Your task to perform on an android device: Go to Reddit.com Image 0: 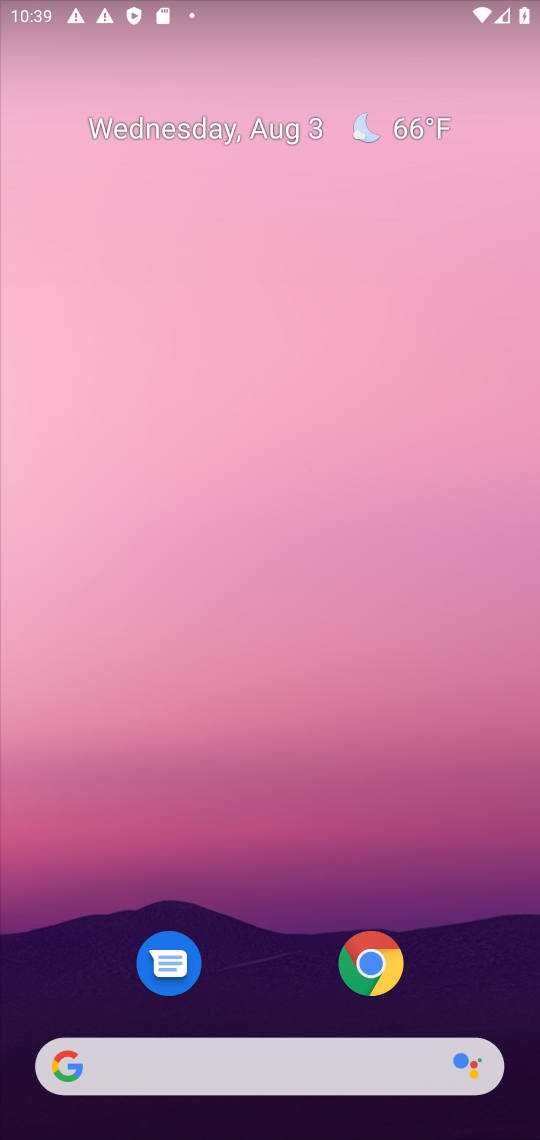
Step 0: click (379, 951)
Your task to perform on an android device: Go to Reddit.com Image 1: 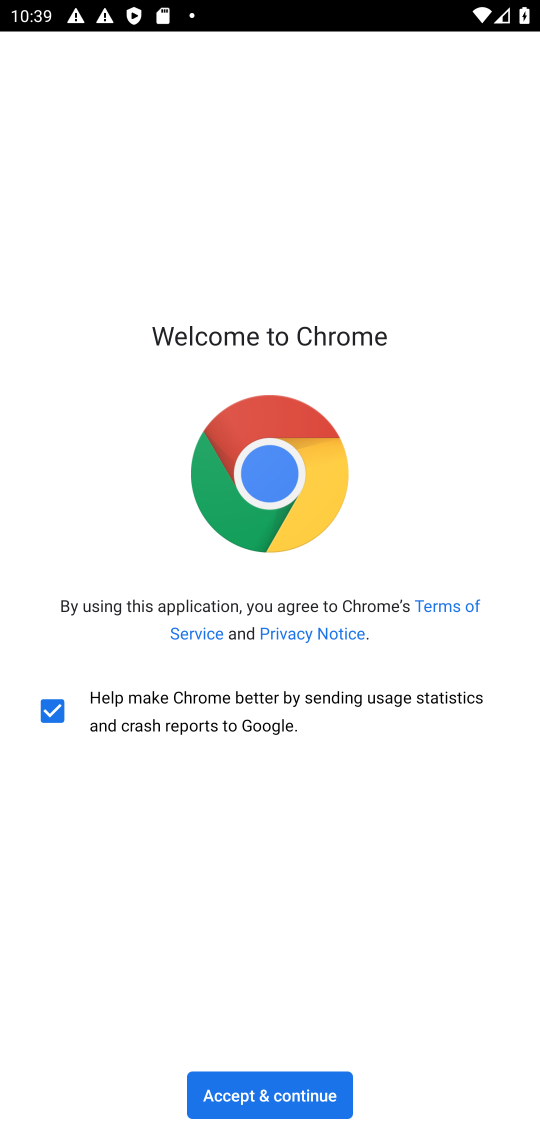
Step 1: click (320, 1081)
Your task to perform on an android device: Go to Reddit.com Image 2: 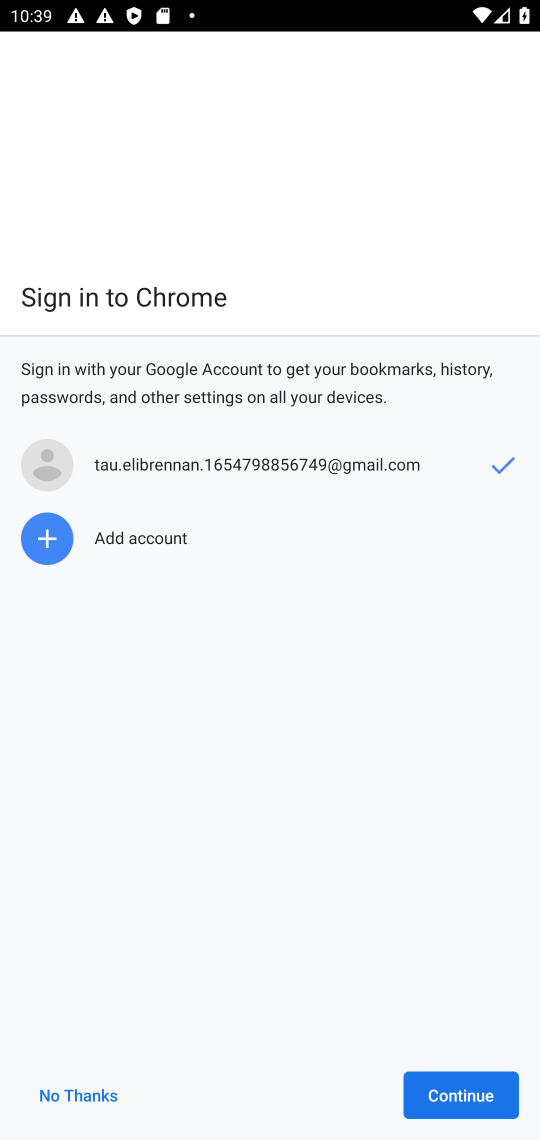
Step 2: click (434, 1085)
Your task to perform on an android device: Go to Reddit.com Image 3: 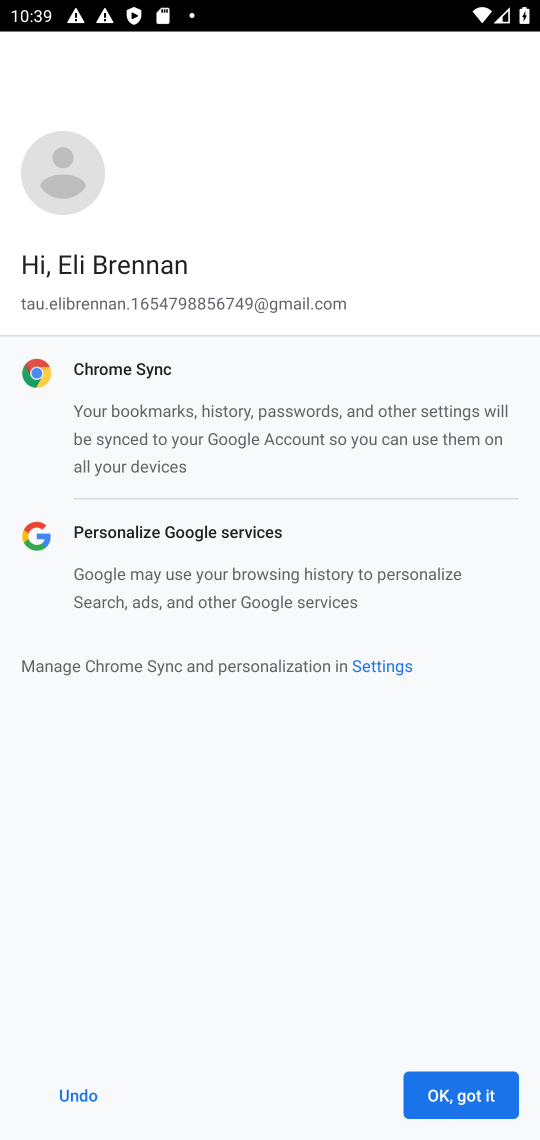
Step 3: click (434, 1085)
Your task to perform on an android device: Go to Reddit.com Image 4: 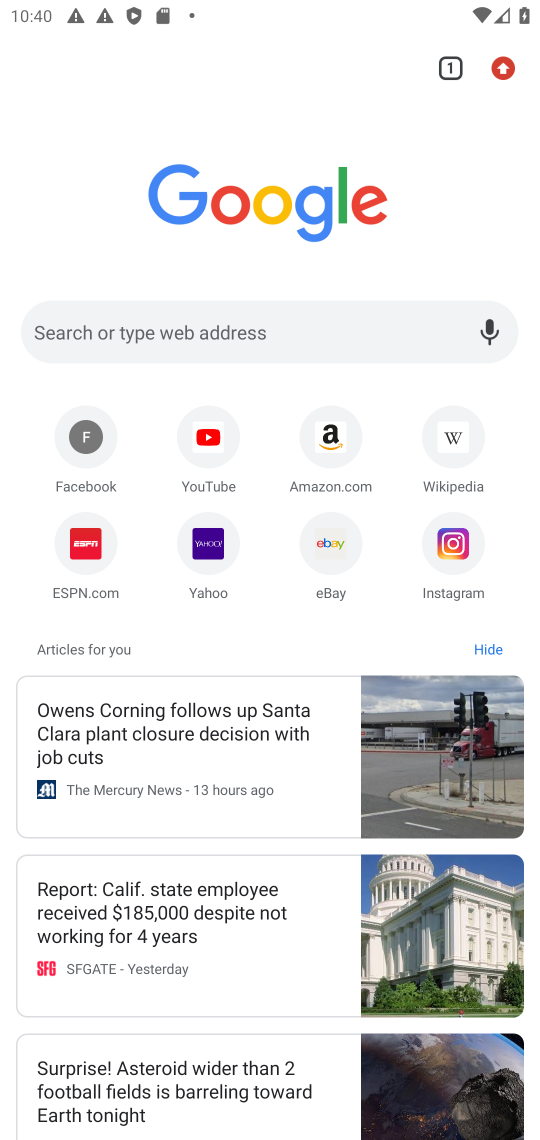
Step 4: click (233, 314)
Your task to perform on an android device: Go to Reddit.com Image 5: 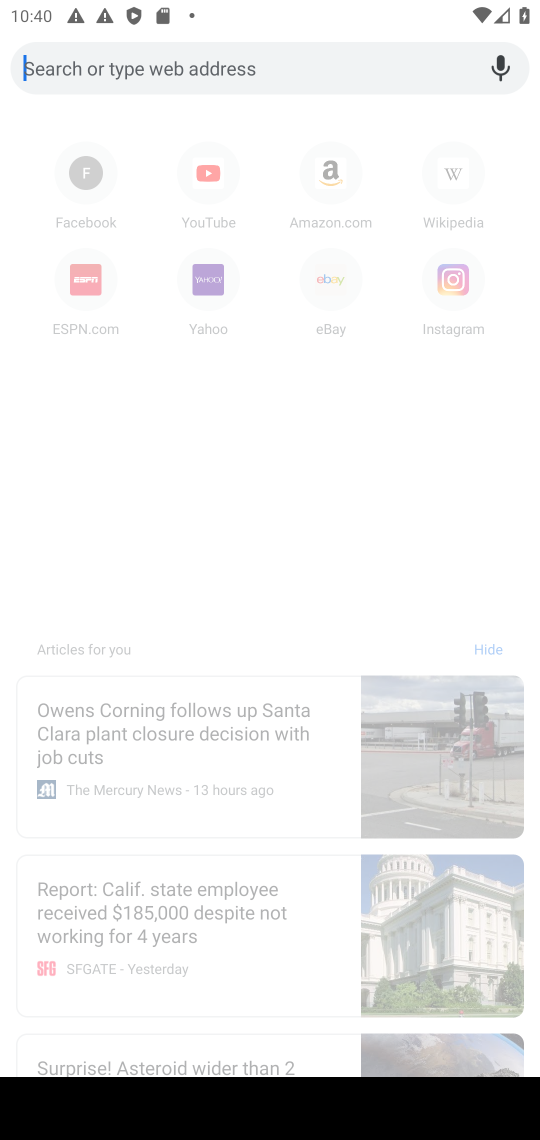
Step 5: type "reddit.com"
Your task to perform on an android device: Go to Reddit.com Image 6: 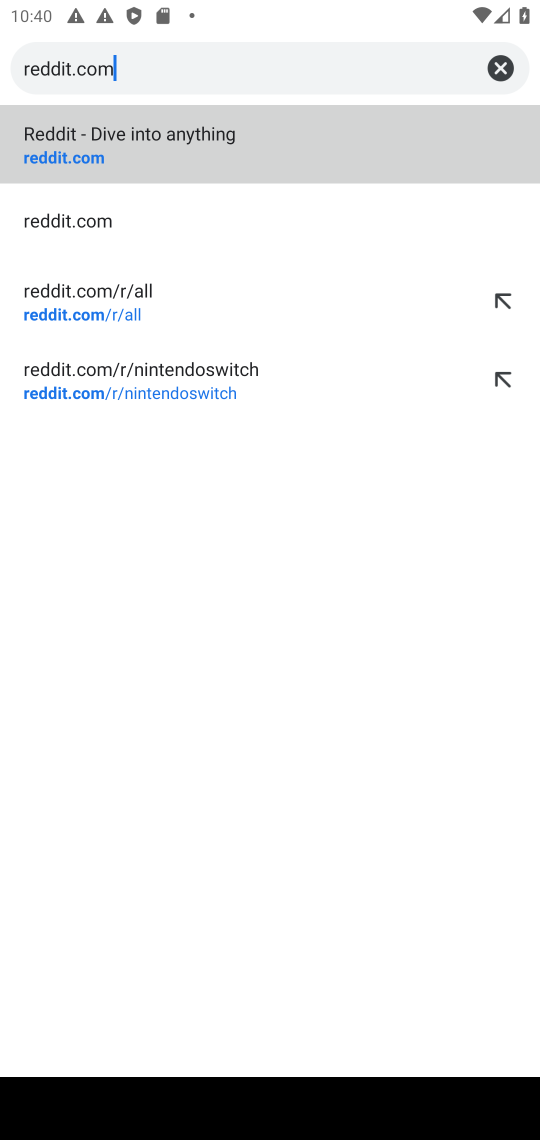
Step 6: click (118, 154)
Your task to perform on an android device: Go to Reddit.com Image 7: 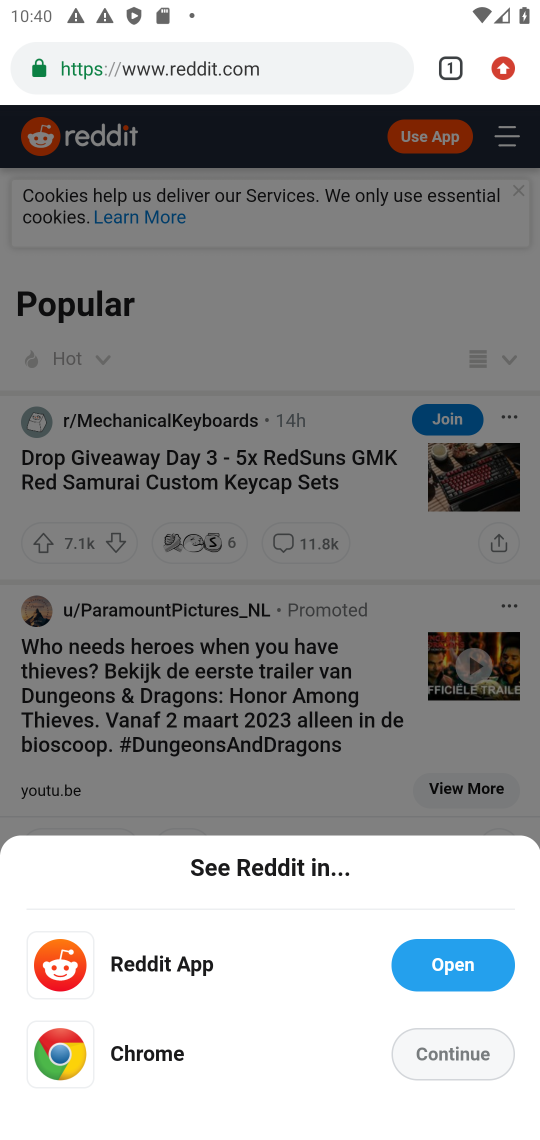
Step 7: task complete